Your task to perform on an android device: What's the weather? Image 0: 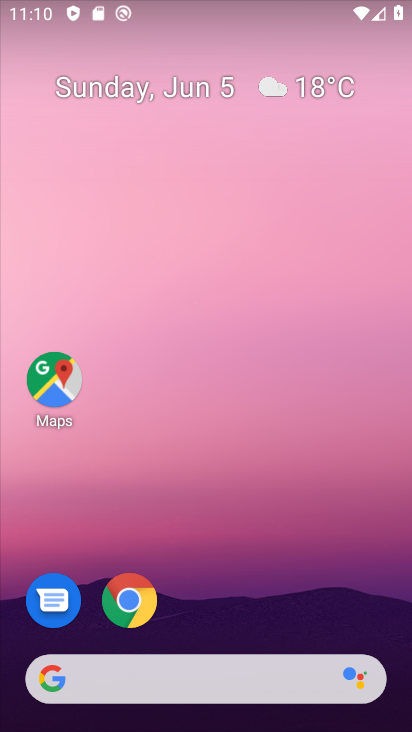
Step 0: click (320, 93)
Your task to perform on an android device: What's the weather? Image 1: 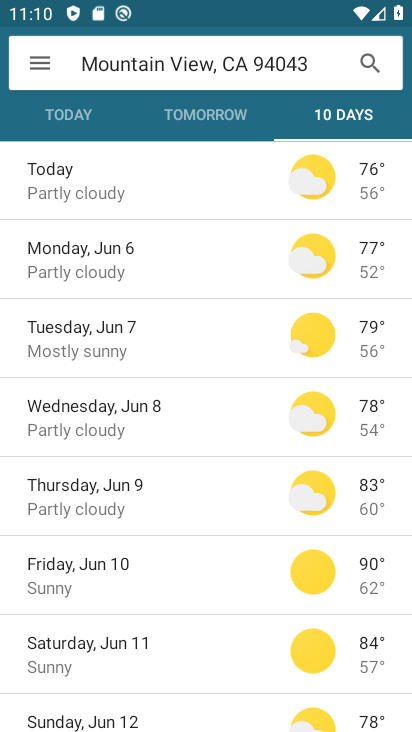
Step 1: click (88, 120)
Your task to perform on an android device: What's the weather? Image 2: 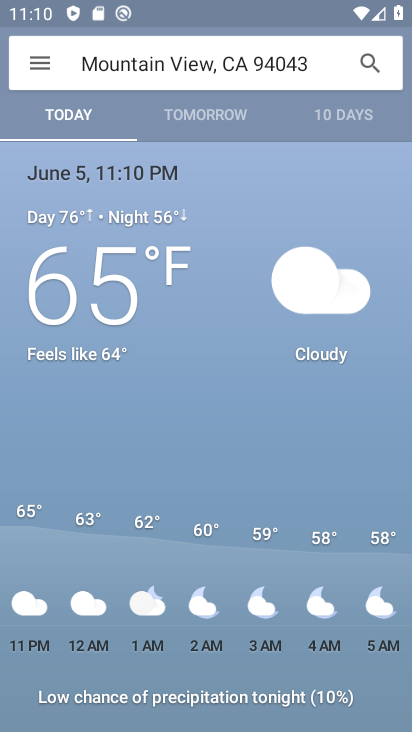
Step 2: task complete